Your task to perform on an android device: turn pop-ups on in chrome Image 0: 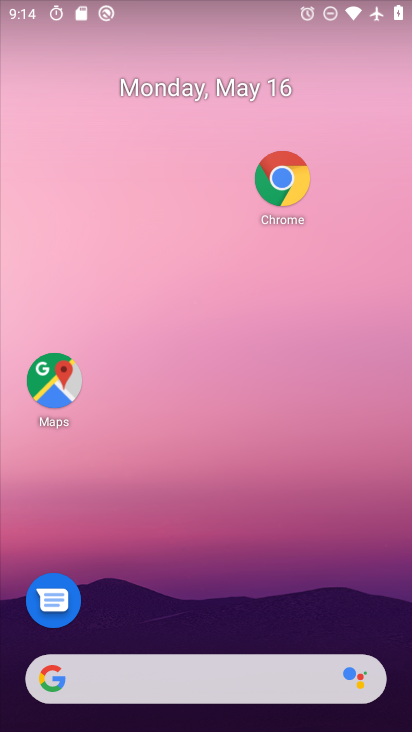
Step 0: click (287, 185)
Your task to perform on an android device: turn pop-ups on in chrome Image 1: 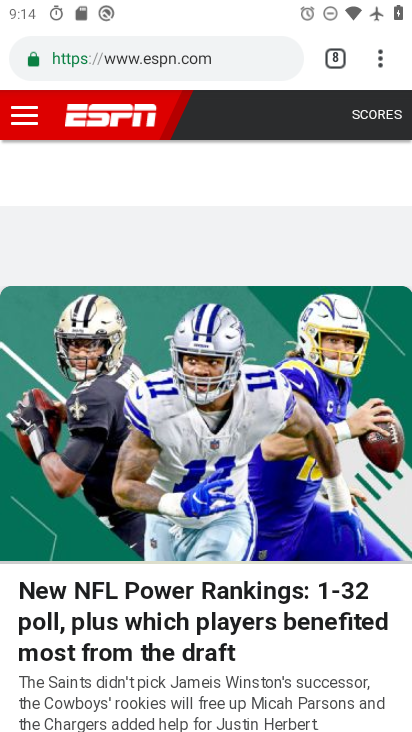
Step 1: drag from (384, 59) to (219, 623)
Your task to perform on an android device: turn pop-ups on in chrome Image 2: 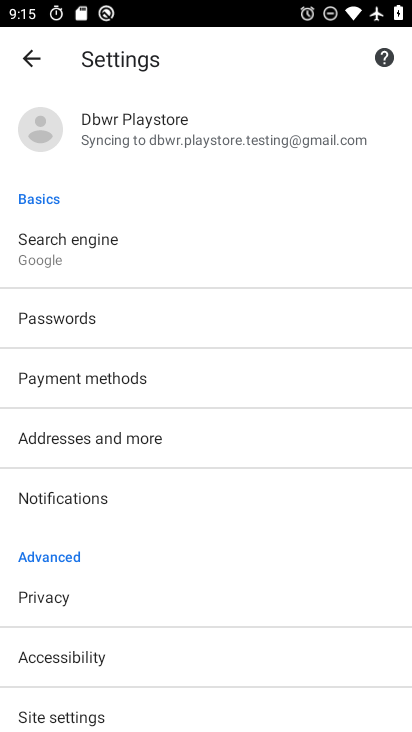
Step 2: click (113, 711)
Your task to perform on an android device: turn pop-ups on in chrome Image 3: 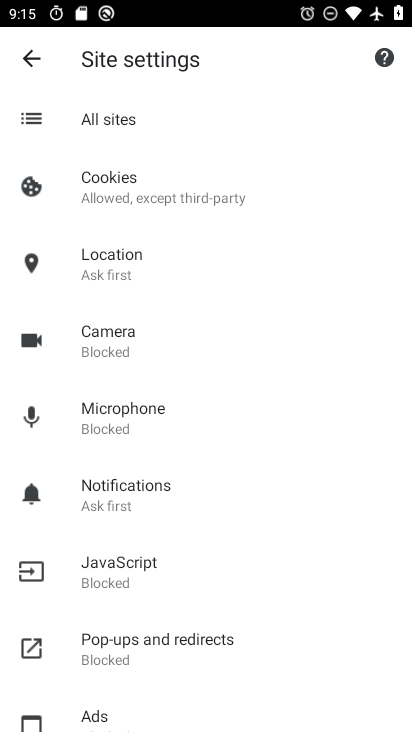
Step 3: click (122, 662)
Your task to perform on an android device: turn pop-ups on in chrome Image 4: 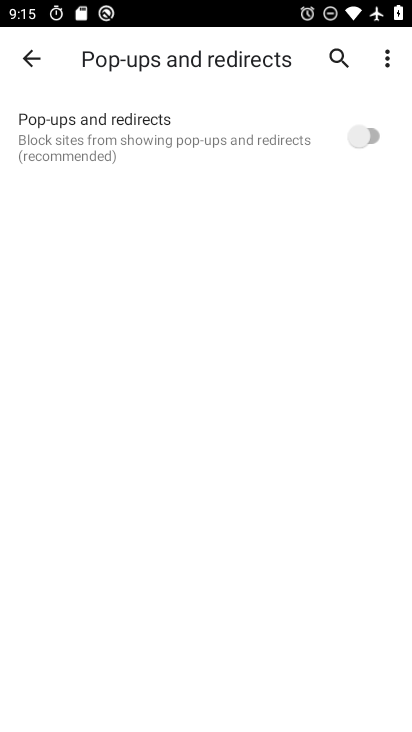
Step 4: click (371, 130)
Your task to perform on an android device: turn pop-ups on in chrome Image 5: 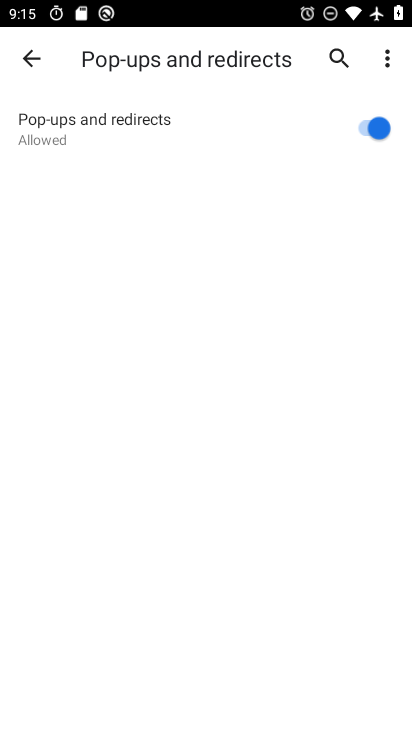
Step 5: task complete